Your task to perform on an android device: turn off javascript in the chrome app Image 0: 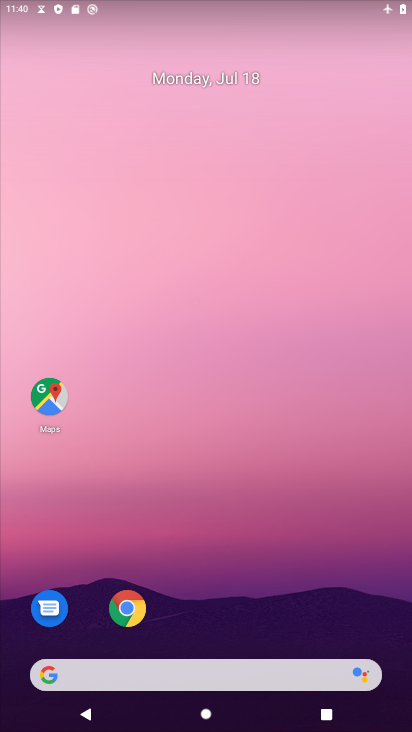
Step 0: drag from (249, 453) to (287, 55)
Your task to perform on an android device: turn off javascript in the chrome app Image 1: 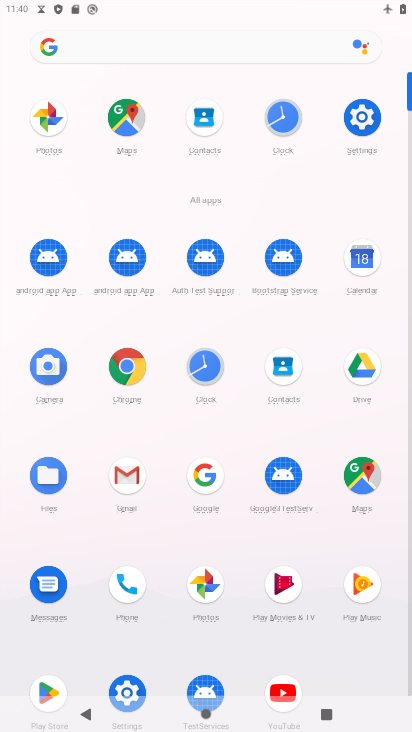
Step 1: click (119, 364)
Your task to perform on an android device: turn off javascript in the chrome app Image 2: 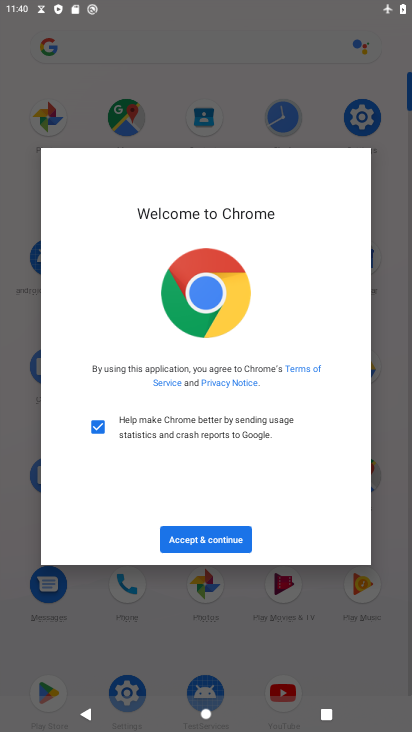
Step 2: click (231, 534)
Your task to perform on an android device: turn off javascript in the chrome app Image 3: 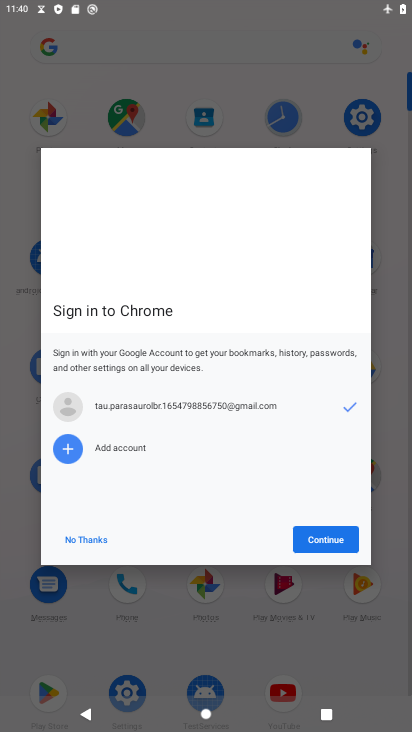
Step 3: click (97, 536)
Your task to perform on an android device: turn off javascript in the chrome app Image 4: 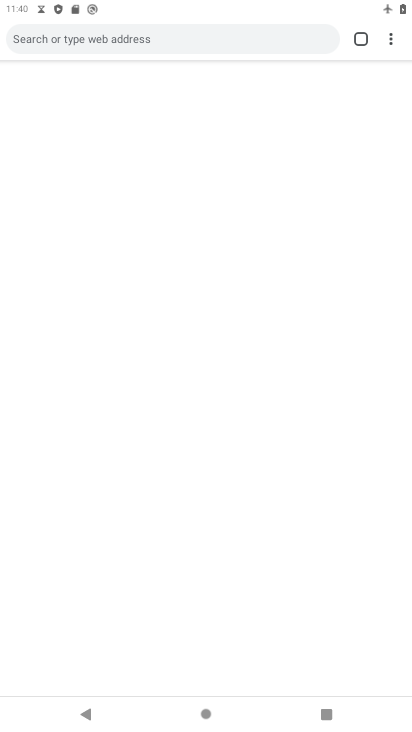
Step 4: click (390, 38)
Your task to perform on an android device: turn off javascript in the chrome app Image 5: 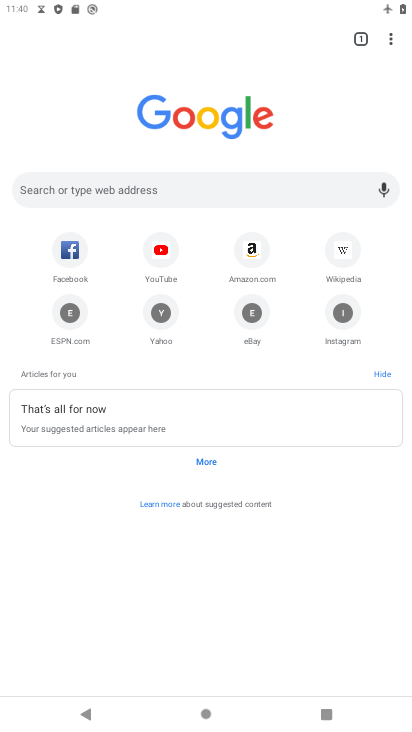
Step 5: drag from (393, 37) to (276, 340)
Your task to perform on an android device: turn off javascript in the chrome app Image 6: 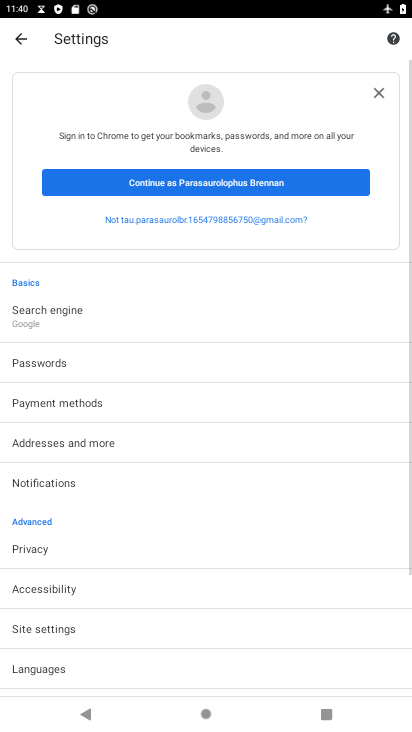
Step 6: click (75, 631)
Your task to perform on an android device: turn off javascript in the chrome app Image 7: 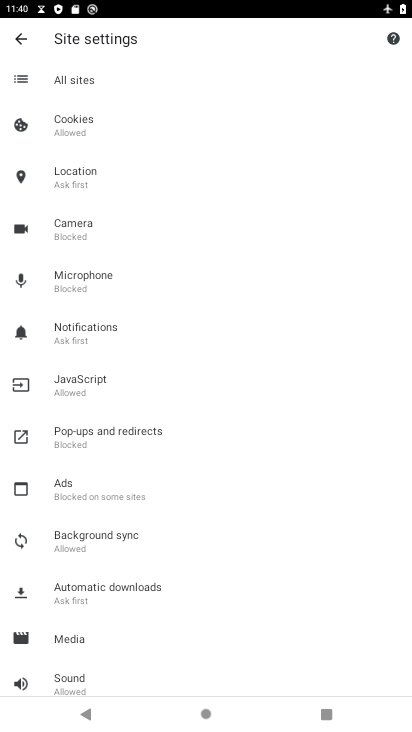
Step 7: click (158, 395)
Your task to perform on an android device: turn off javascript in the chrome app Image 8: 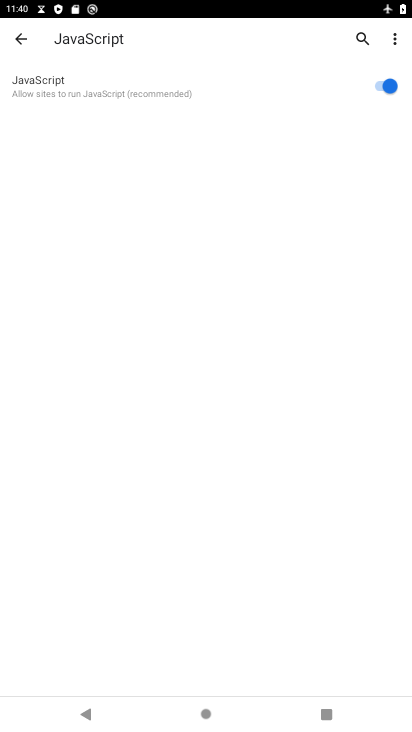
Step 8: click (377, 82)
Your task to perform on an android device: turn off javascript in the chrome app Image 9: 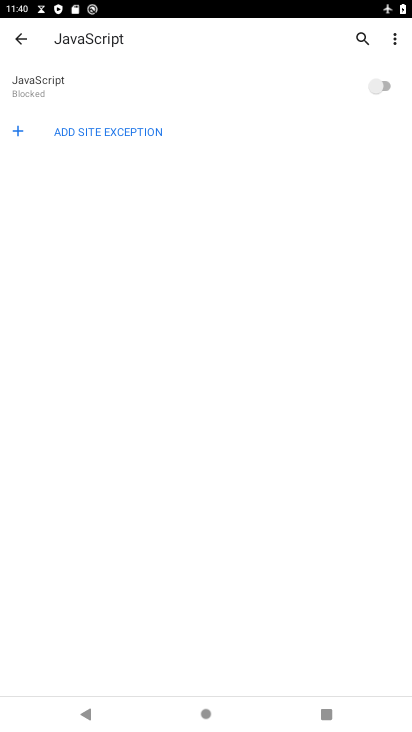
Step 9: task complete